Your task to perform on an android device: What is the news today? Image 0: 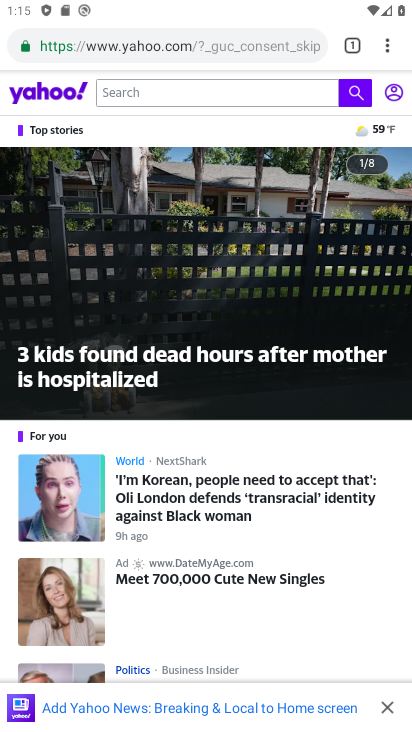
Step 0: press back button
Your task to perform on an android device: What is the news today? Image 1: 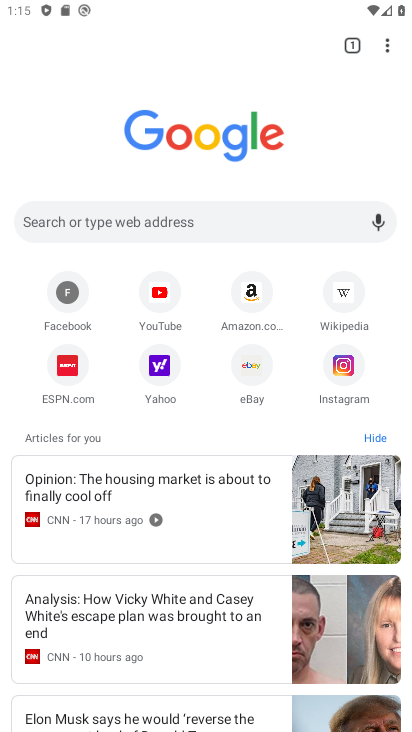
Step 1: task complete